Your task to perform on an android device: Open calendar and show me the fourth week of next month Image 0: 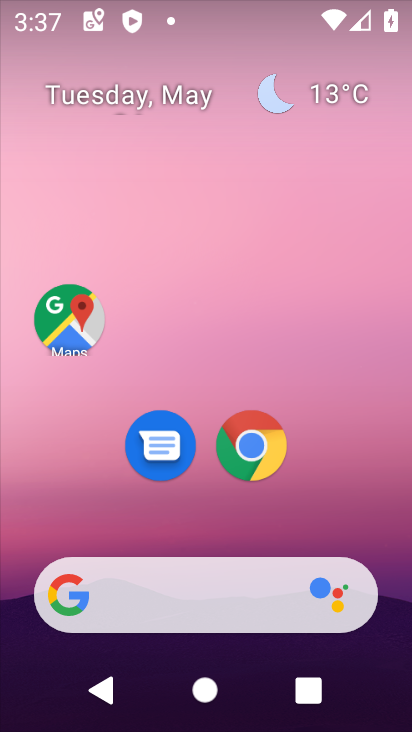
Step 0: press home button
Your task to perform on an android device: Open calendar and show me the fourth week of next month Image 1: 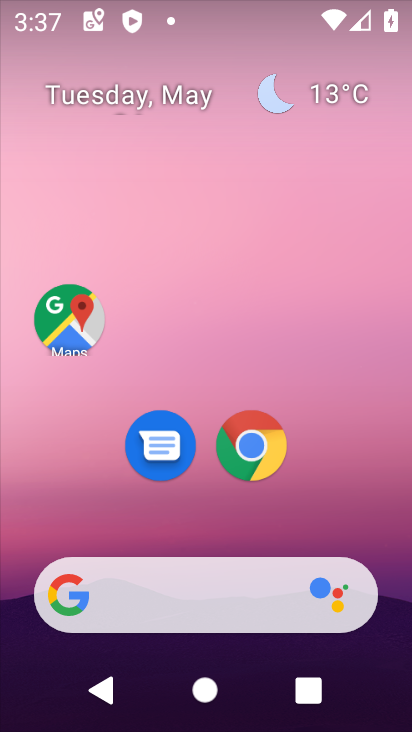
Step 1: drag from (214, 525) to (218, 34)
Your task to perform on an android device: Open calendar and show me the fourth week of next month Image 2: 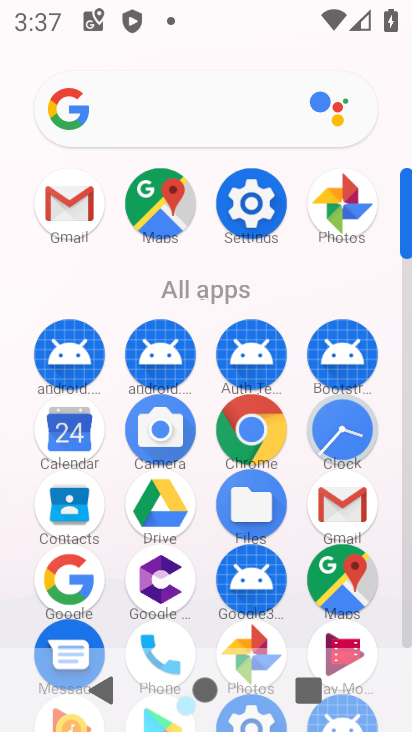
Step 2: click (70, 432)
Your task to perform on an android device: Open calendar and show me the fourth week of next month Image 3: 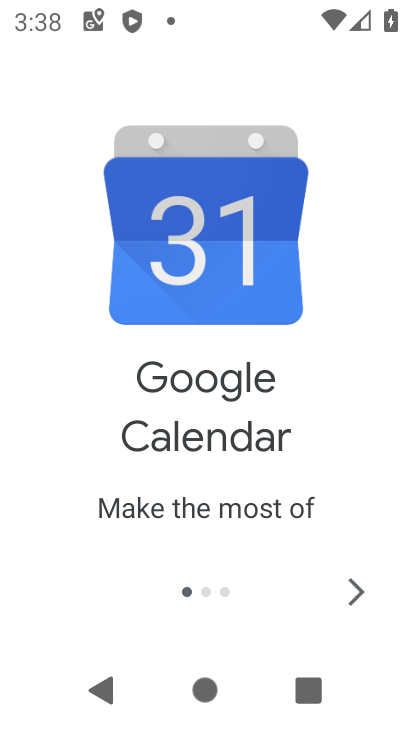
Step 3: click (355, 589)
Your task to perform on an android device: Open calendar and show me the fourth week of next month Image 4: 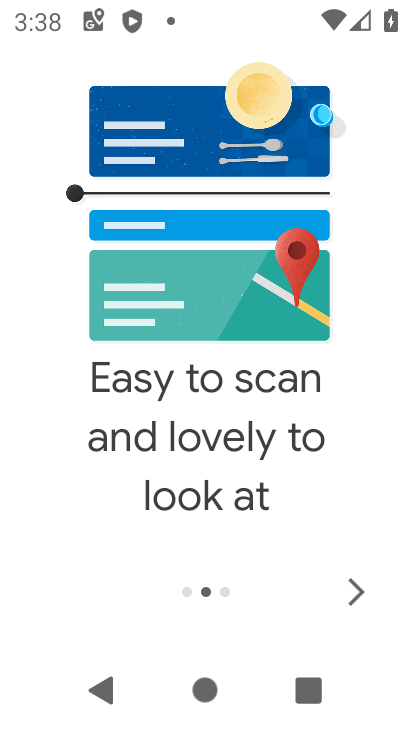
Step 4: click (355, 589)
Your task to perform on an android device: Open calendar and show me the fourth week of next month Image 5: 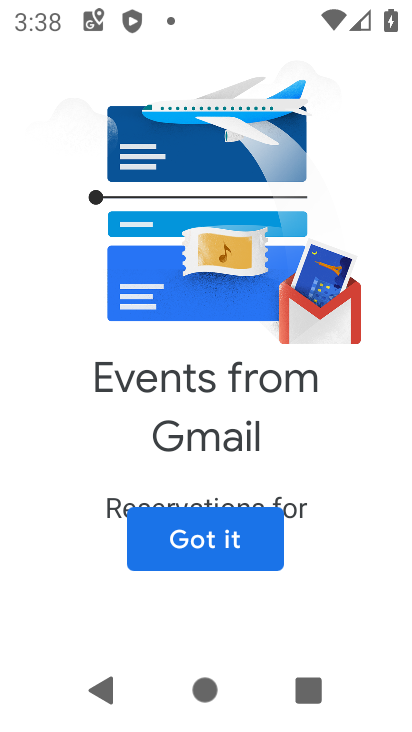
Step 5: click (217, 541)
Your task to perform on an android device: Open calendar and show me the fourth week of next month Image 6: 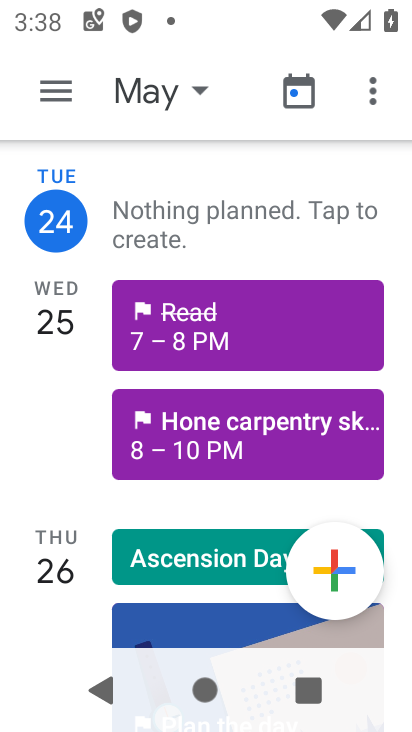
Step 6: click (61, 96)
Your task to perform on an android device: Open calendar and show me the fourth week of next month Image 7: 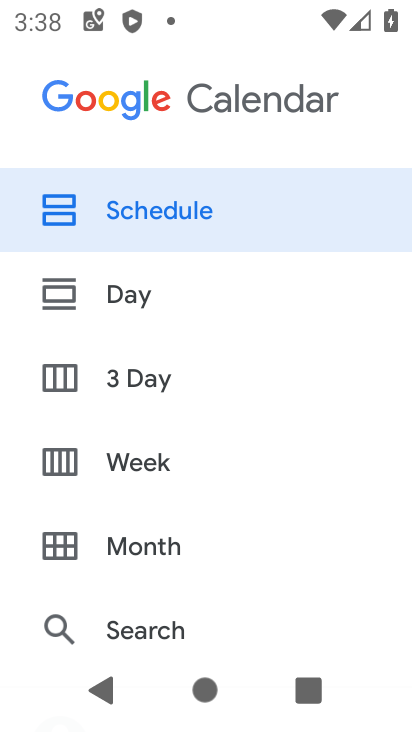
Step 7: click (91, 459)
Your task to perform on an android device: Open calendar and show me the fourth week of next month Image 8: 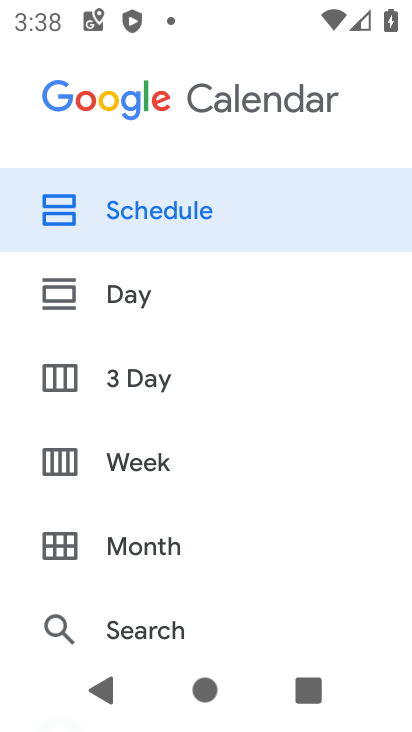
Step 8: click (92, 463)
Your task to perform on an android device: Open calendar and show me the fourth week of next month Image 9: 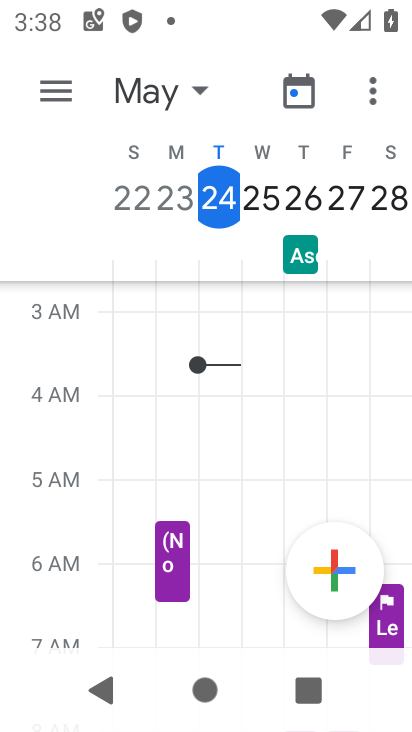
Step 9: drag from (392, 199) to (23, 199)
Your task to perform on an android device: Open calendar and show me the fourth week of next month Image 10: 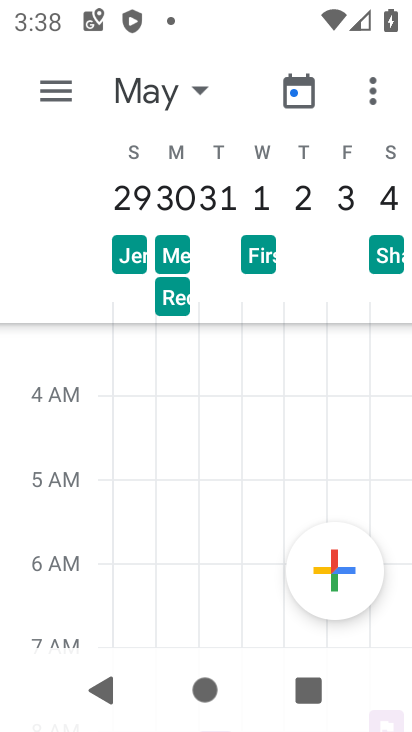
Step 10: drag from (391, 200) to (56, 198)
Your task to perform on an android device: Open calendar and show me the fourth week of next month Image 11: 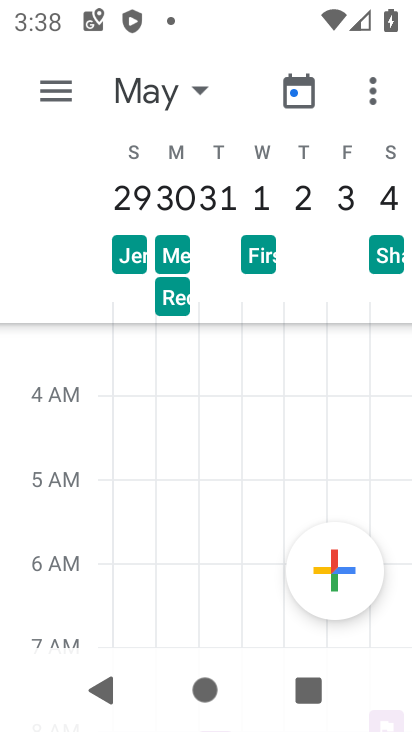
Step 11: drag from (376, 195) to (65, 188)
Your task to perform on an android device: Open calendar and show me the fourth week of next month Image 12: 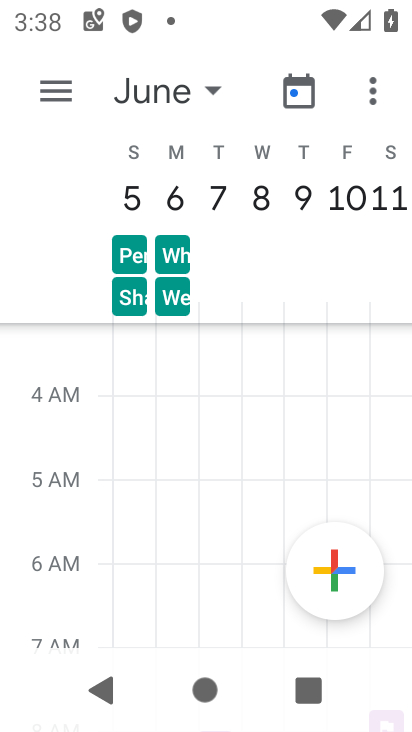
Step 12: drag from (393, 195) to (74, 201)
Your task to perform on an android device: Open calendar and show me the fourth week of next month Image 13: 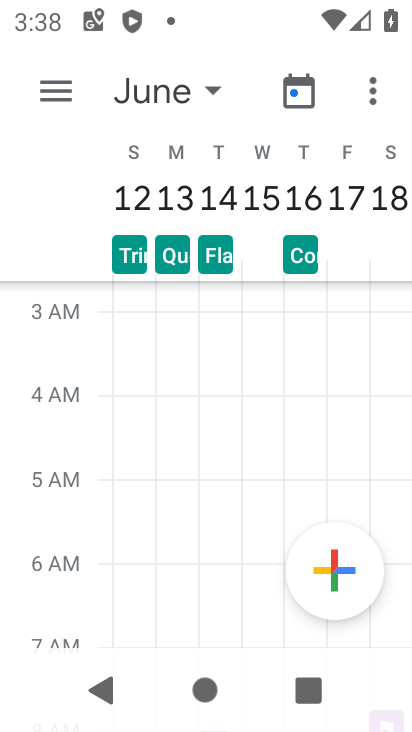
Step 13: drag from (383, 193) to (0, 198)
Your task to perform on an android device: Open calendar and show me the fourth week of next month Image 14: 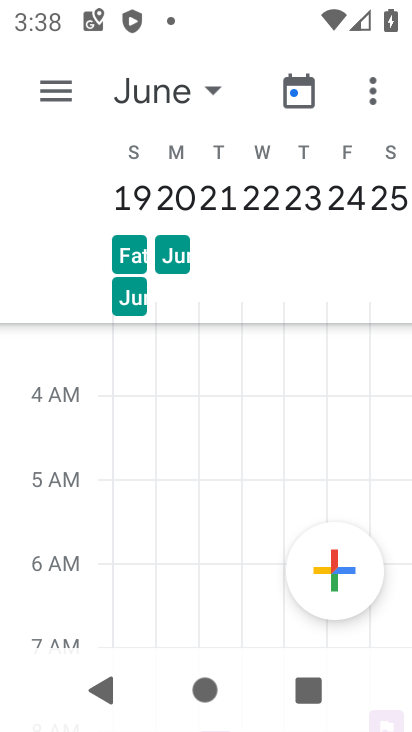
Step 14: click (132, 194)
Your task to perform on an android device: Open calendar and show me the fourth week of next month Image 15: 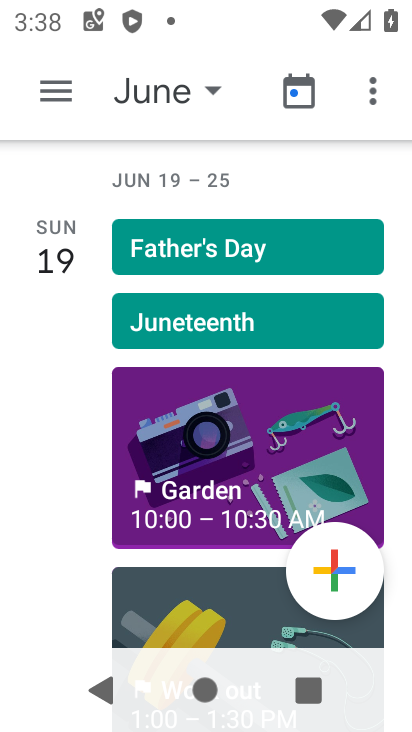
Step 15: task complete